Your task to perform on an android device: Go to Yahoo.com Image 0: 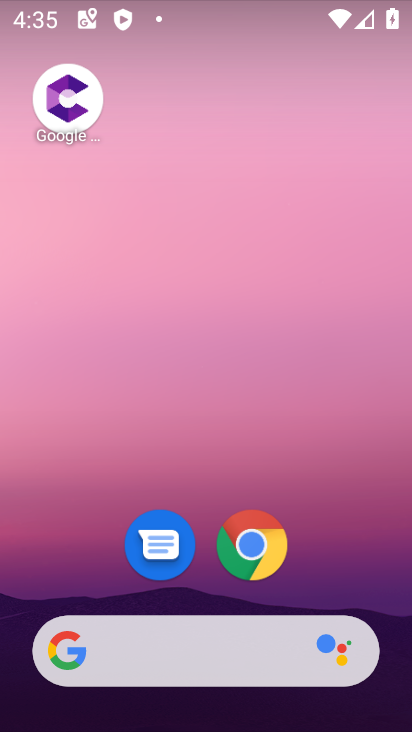
Step 0: drag from (358, 563) to (13, 5)
Your task to perform on an android device: Go to Yahoo.com Image 1: 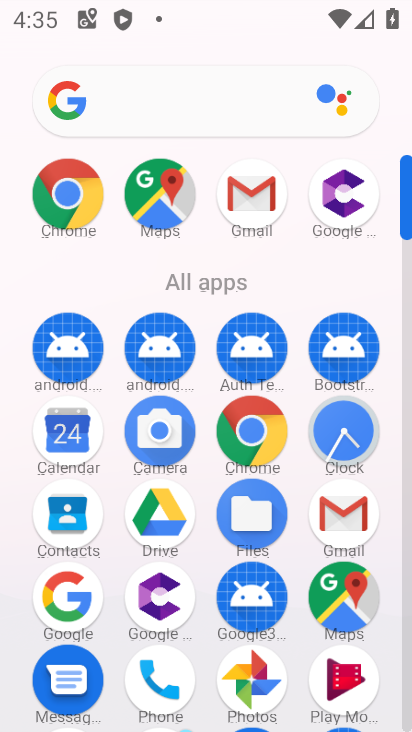
Step 1: click (250, 432)
Your task to perform on an android device: Go to Yahoo.com Image 2: 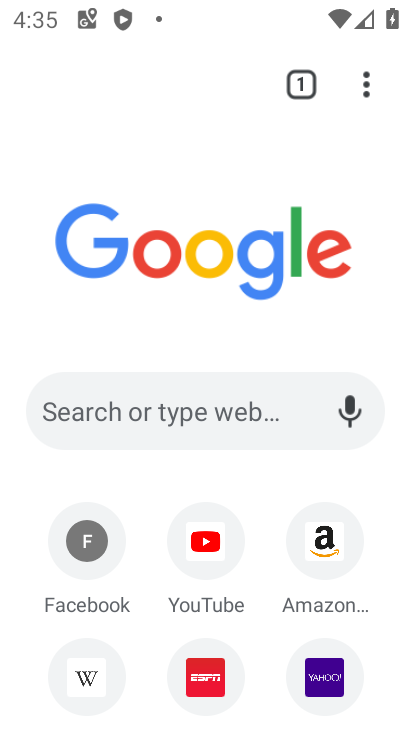
Step 2: click (174, 421)
Your task to perform on an android device: Go to Yahoo.com Image 3: 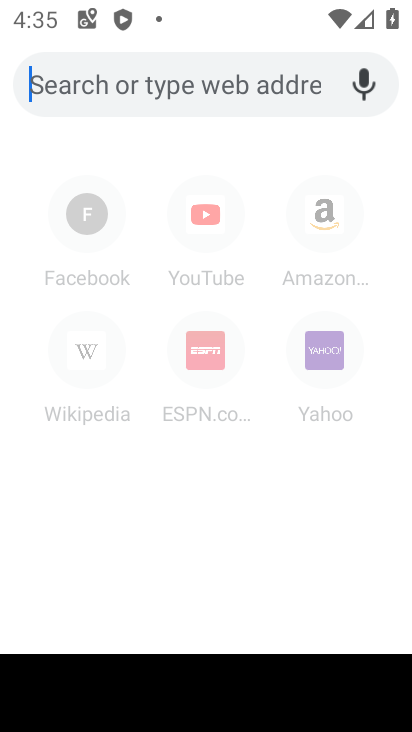
Step 3: click (325, 351)
Your task to perform on an android device: Go to Yahoo.com Image 4: 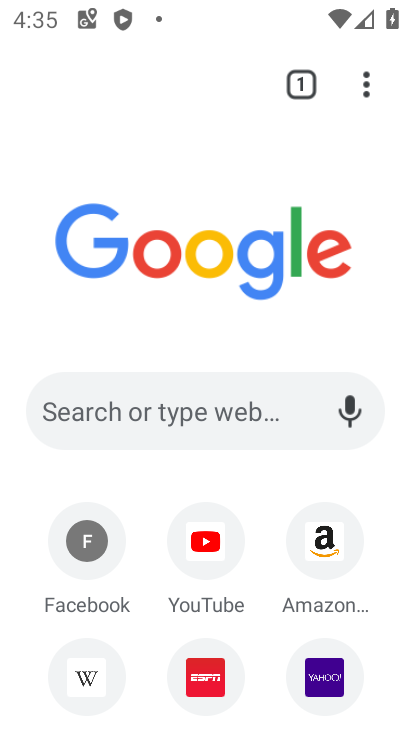
Step 4: click (333, 669)
Your task to perform on an android device: Go to Yahoo.com Image 5: 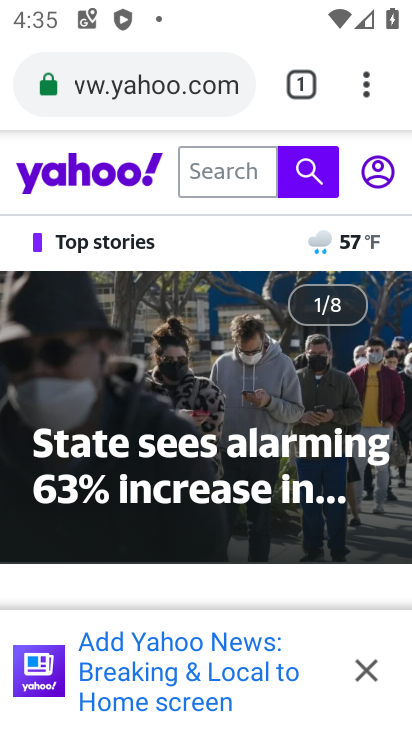
Step 5: task complete